Your task to perform on an android device: Is it going to rain today? Image 0: 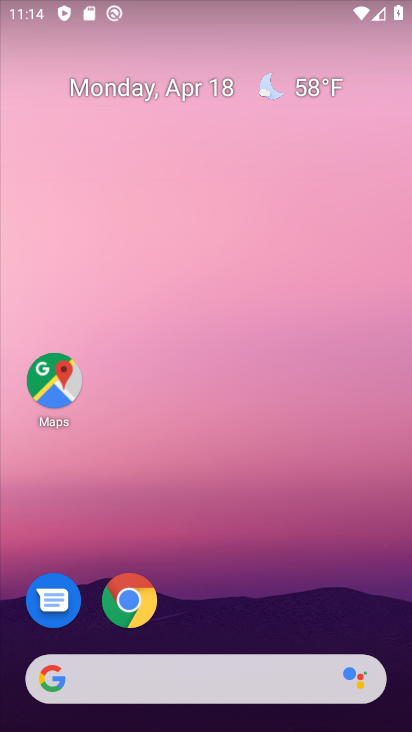
Step 0: drag from (189, 562) to (227, 104)
Your task to perform on an android device: Is it going to rain today? Image 1: 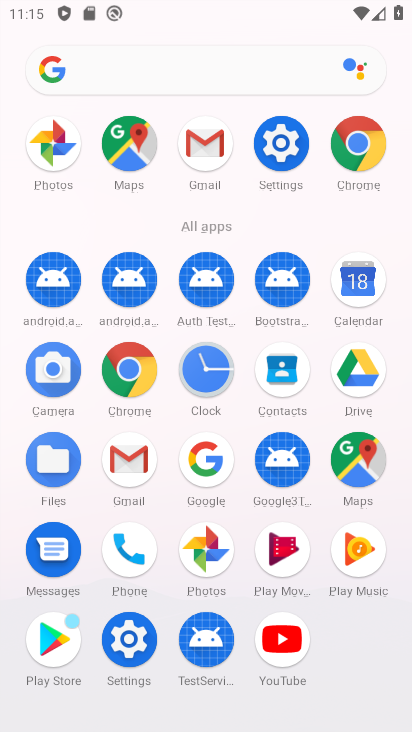
Step 1: press home button
Your task to perform on an android device: Is it going to rain today? Image 2: 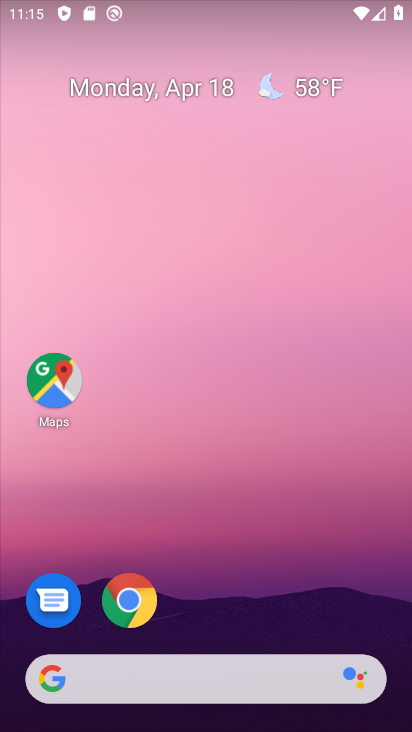
Step 2: click (304, 83)
Your task to perform on an android device: Is it going to rain today? Image 3: 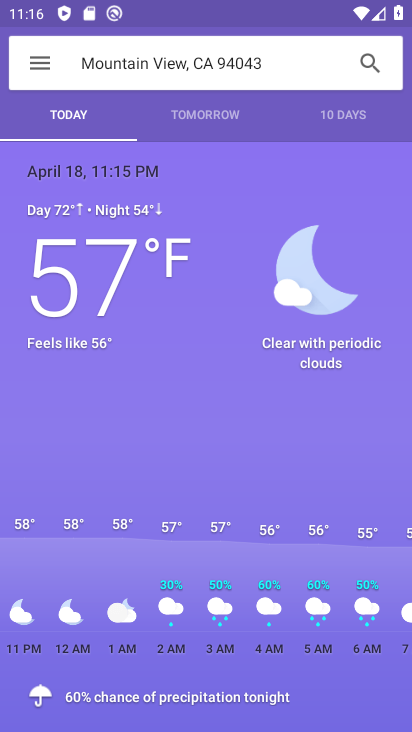
Step 3: task complete